Your task to perform on an android device: clear all cookies in the chrome app Image 0: 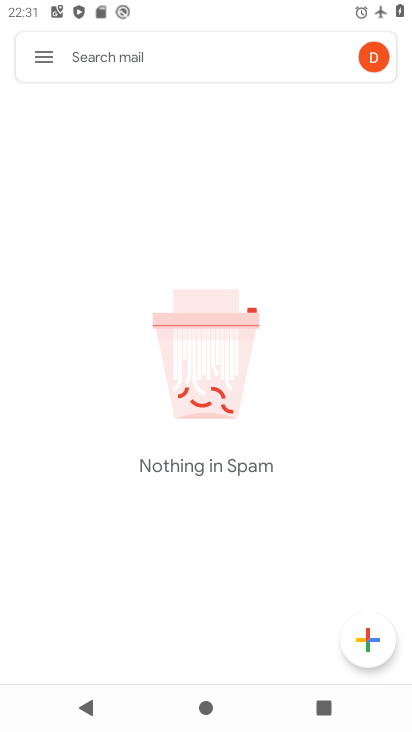
Step 0: press home button
Your task to perform on an android device: clear all cookies in the chrome app Image 1: 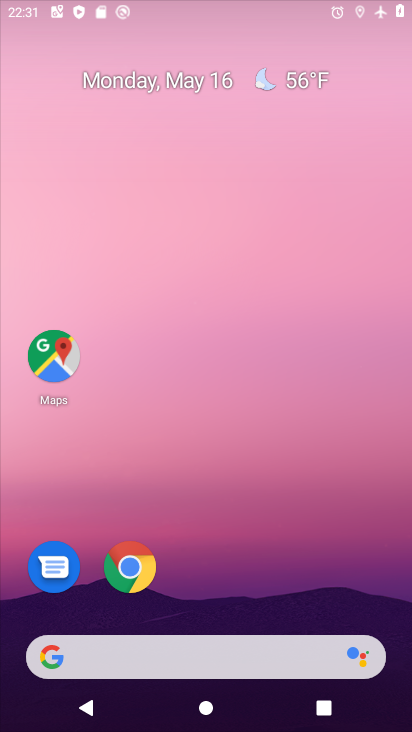
Step 1: drag from (203, 607) to (191, 228)
Your task to perform on an android device: clear all cookies in the chrome app Image 2: 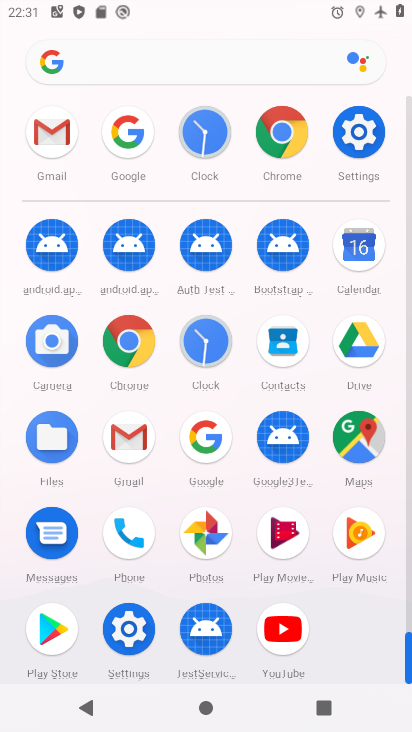
Step 2: click (276, 133)
Your task to perform on an android device: clear all cookies in the chrome app Image 3: 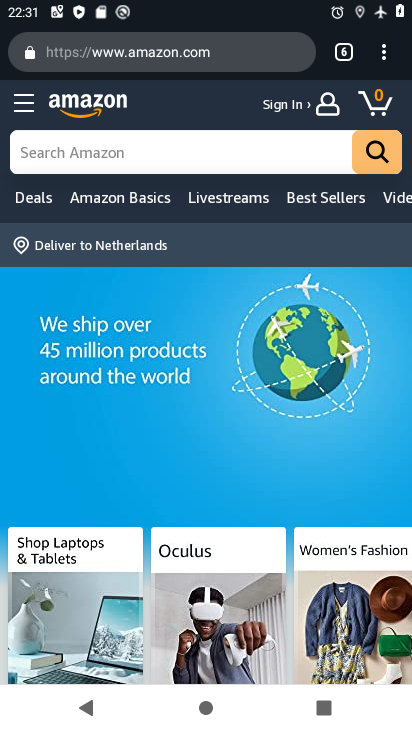
Step 3: click (375, 44)
Your task to perform on an android device: clear all cookies in the chrome app Image 4: 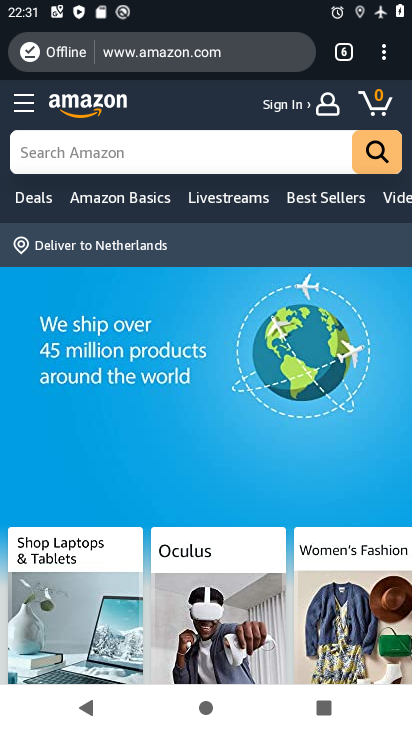
Step 4: click (384, 62)
Your task to perform on an android device: clear all cookies in the chrome app Image 5: 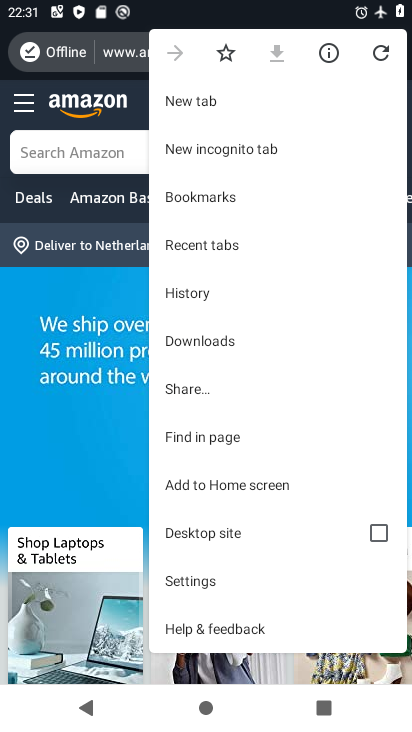
Step 5: click (215, 580)
Your task to perform on an android device: clear all cookies in the chrome app Image 6: 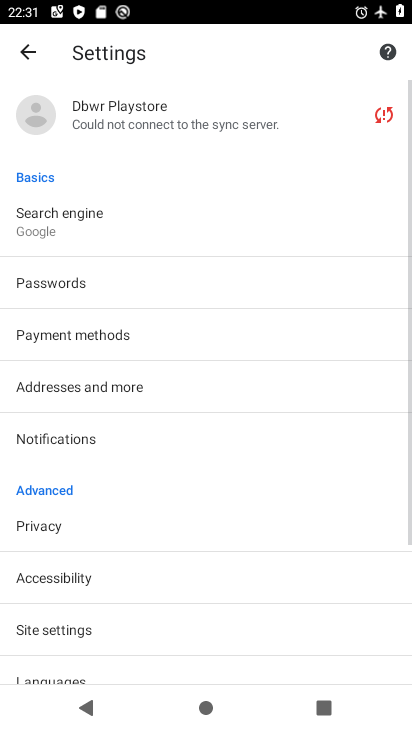
Step 6: click (87, 530)
Your task to perform on an android device: clear all cookies in the chrome app Image 7: 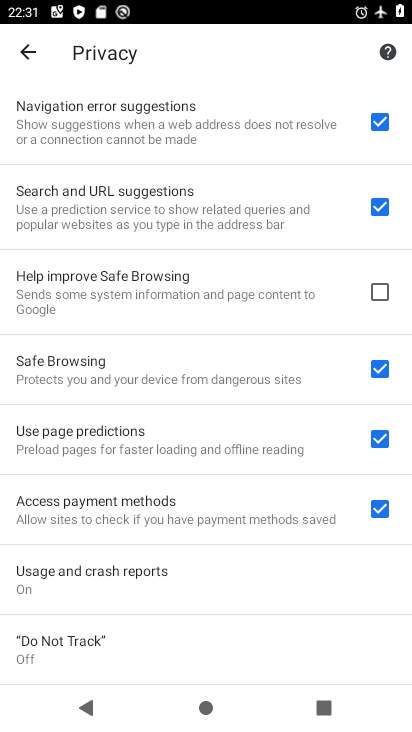
Step 7: drag from (189, 614) to (241, 185)
Your task to perform on an android device: clear all cookies in the chrome app Image 8: 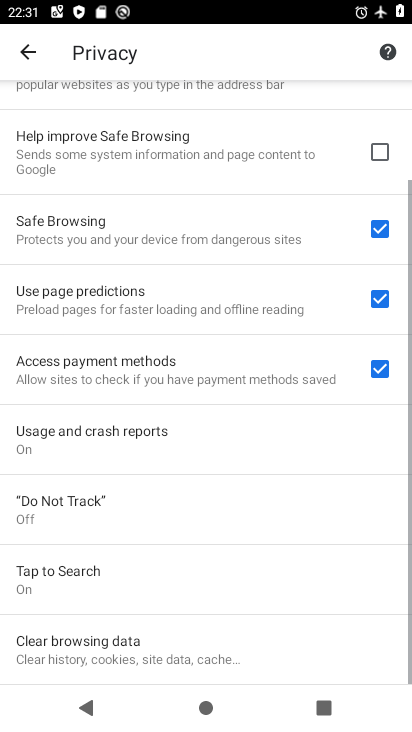
Step 8: click (174, 624)
Your task to perform on an android device: clear all cookies in the chrome app Image 9: 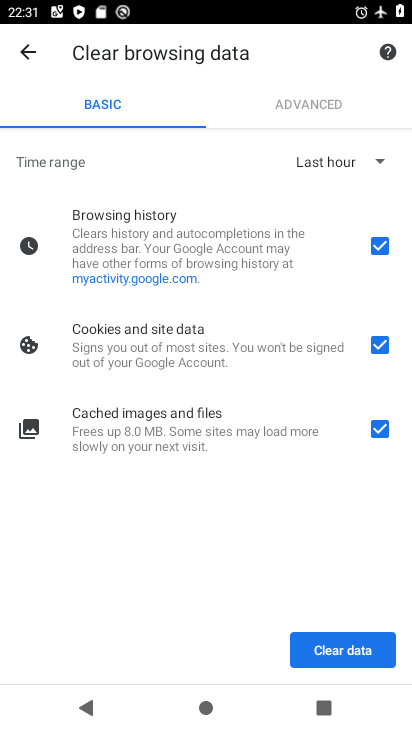
Step 9: click (354, 647)
Your task to perform on an android device: clear all cookies in the chrome app Image 10: 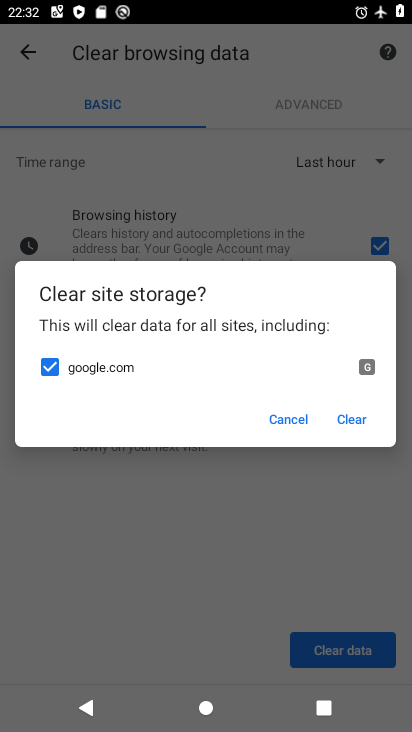
Step 10: click (353, 419)
Your task to perform on an android device: clear all cookies in the chrome app Image 11: 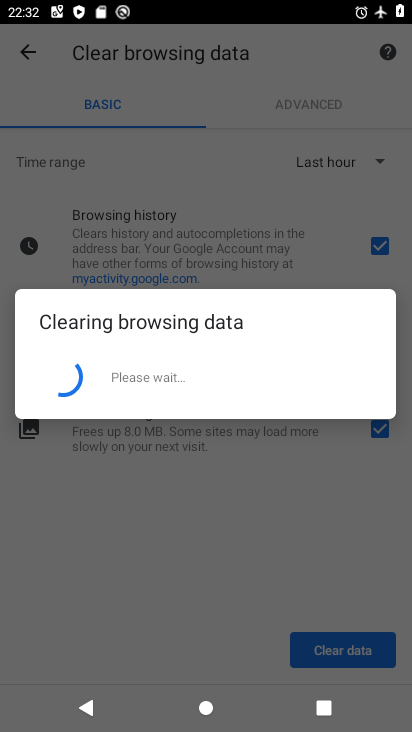
Step 11: task complete